Your task to perform on an android device: change alarm snooze length Image 0: 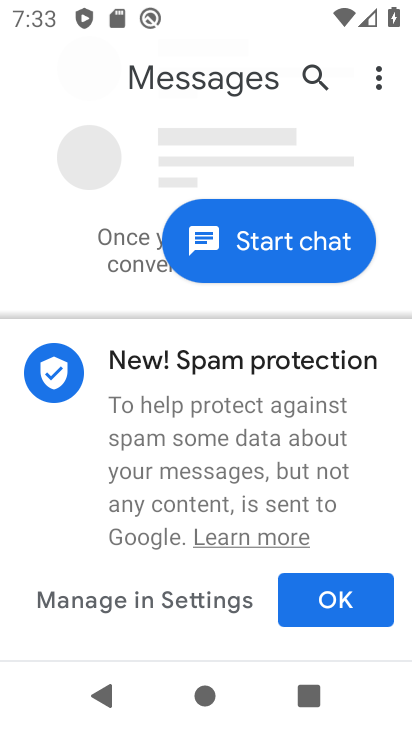
Step 0: press home button
Your task to perform on an android device: change alarm snooze length Image 1: 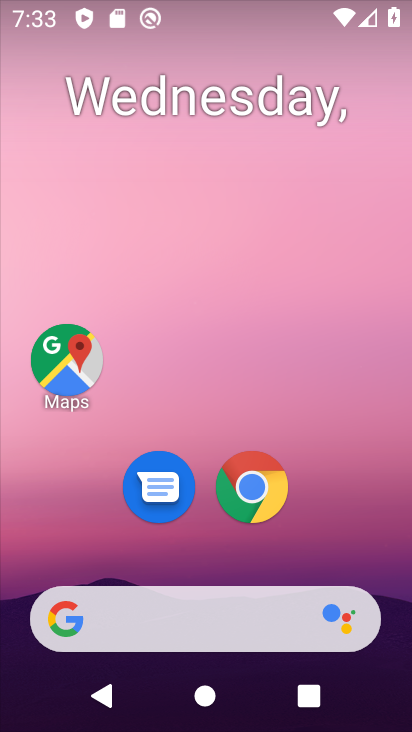
Step 1: drag from (356, 579) to (275, 12)
Your task to perform on an android device: change alarm snooze length Image 2: 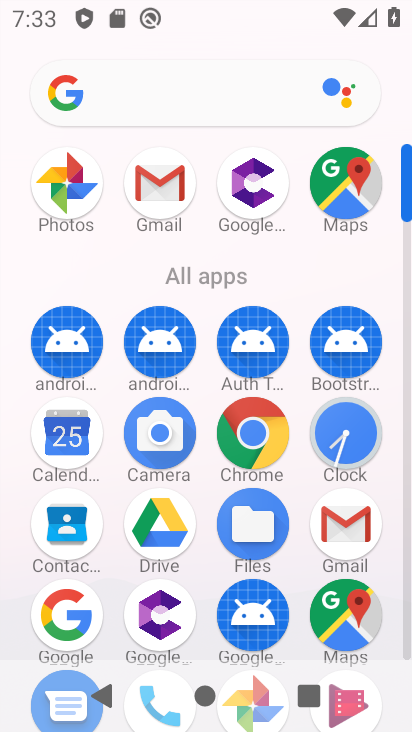
Step 2: click (336, 443)
Your task to perform on an android device: change alarm snooze length Image 3: 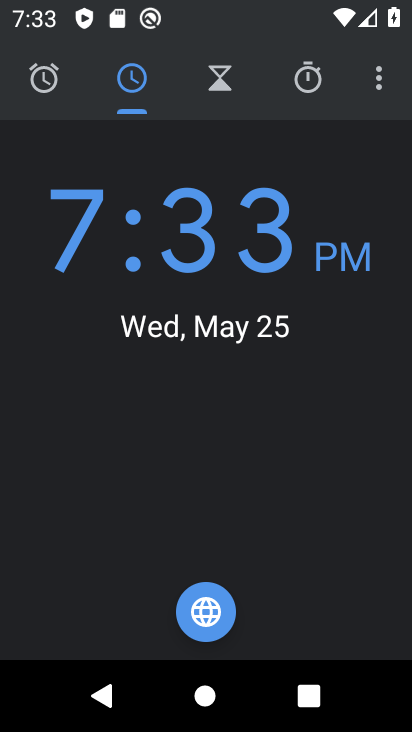
Step 3: click (384, 83)
Your task to perform on an android device: change alarm snooze length Image 4: 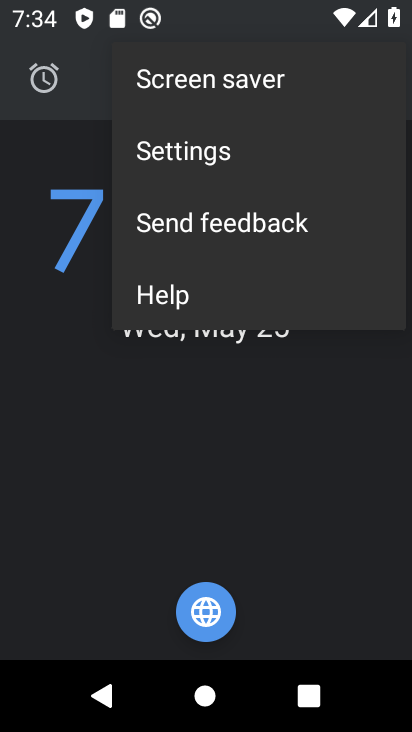
Step 4: click (184, 163)
Your task to perform on an android device: change alarm snooze length Image 5: 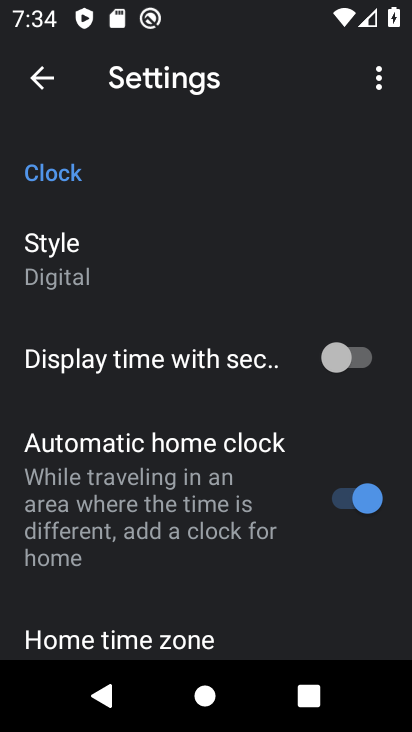
Step 5: drag from (167, 509) to (171, 76)
Your task to perform on an android device: change alarm snooze length Image 6: 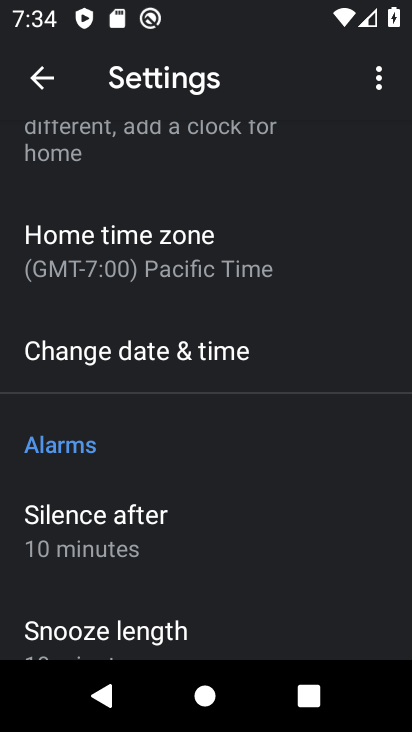
Step 6: drag from (172, 428) to (170, 143)
Your task to perform on an android device: change alarm snooze length Image 7: 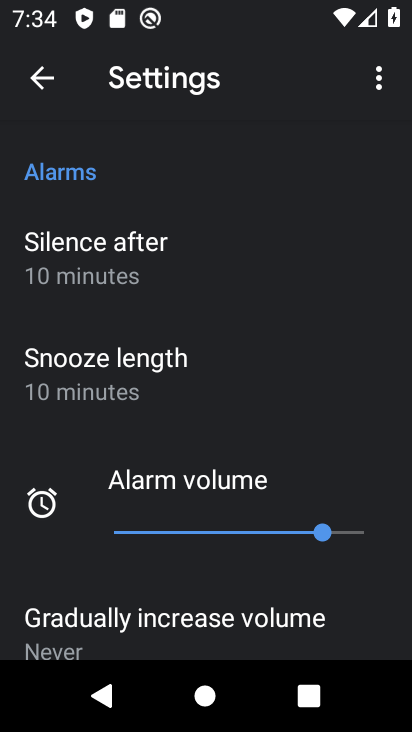
Step 7: click (108, 395)
Your task to perform on an android device: change alarm snooze length Image 8: 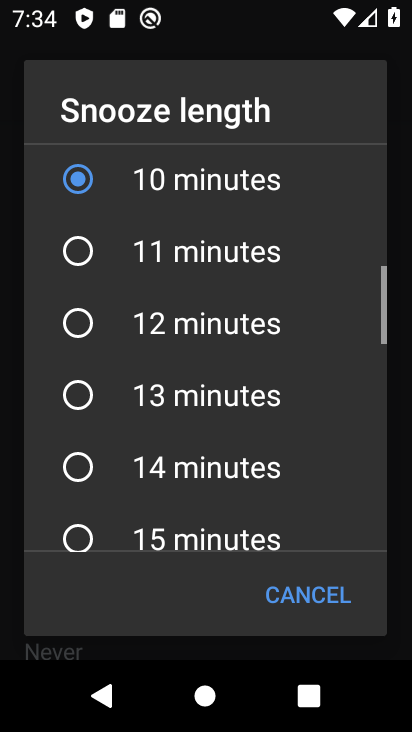
Step 8: click (78, 236)
Your task to perform on an android device: change alarm snooze length Image 9: 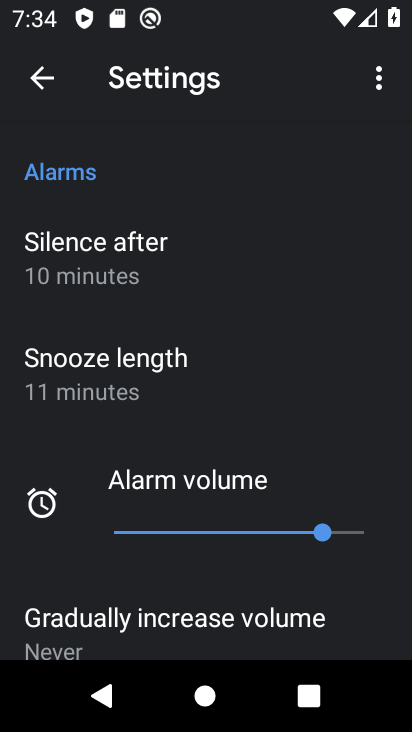
Step 9: task complete